Your task to perform on an android device: find photos in the google photos app Image 0: 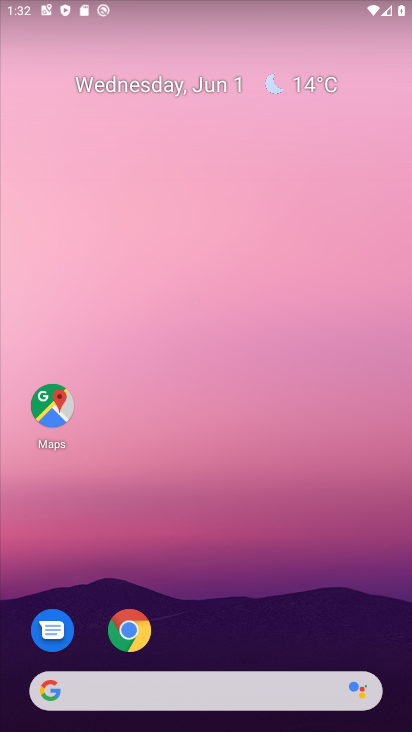
Step 0: click (55, 398)
Your task to perform on an android device: find photos in the google photos app Image 1: 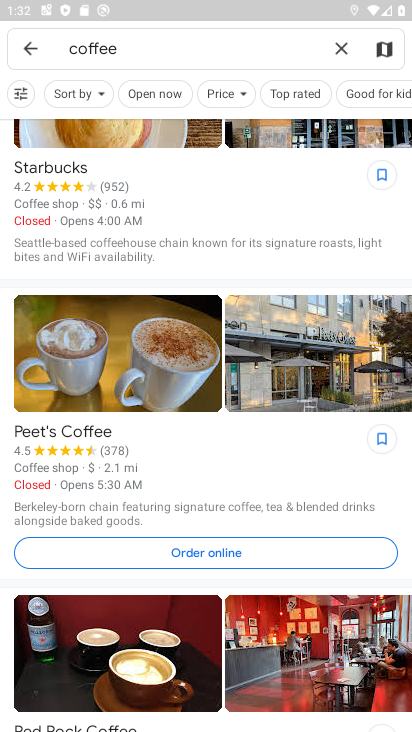
Step 1: click (339, 46)
Your task to perform on an android device: find photos in the google photos app Image 2: 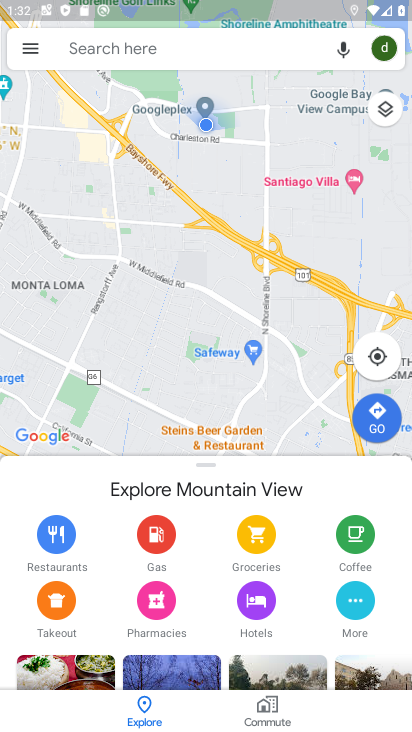
Step 2: press home button
Your task to perform on an android device: find photos in the google photos app Image 3: 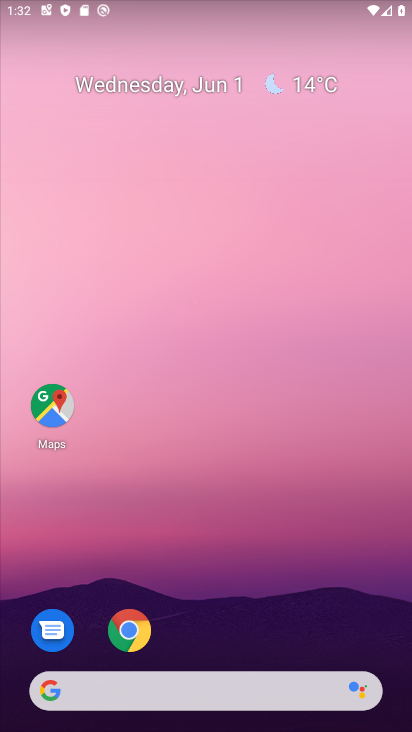
Step 3: drag from (207, 648) to (209, 60)
Your task to perform on an android device: find photos in the google photos app Image 4: 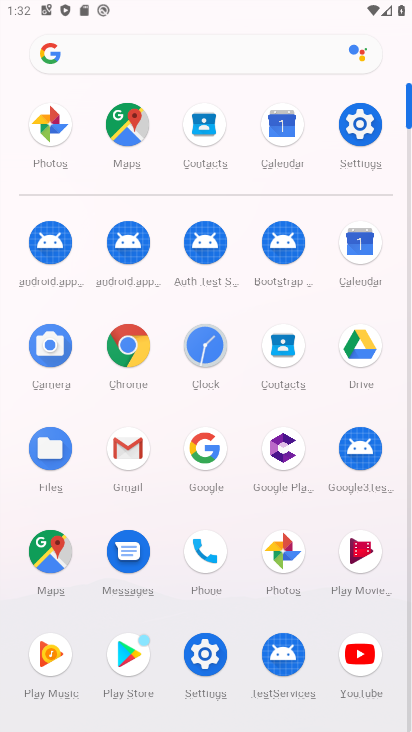
Step 4: click (284, 542)
Your task to perform on an android device: find photos in the google photos app Image 5: 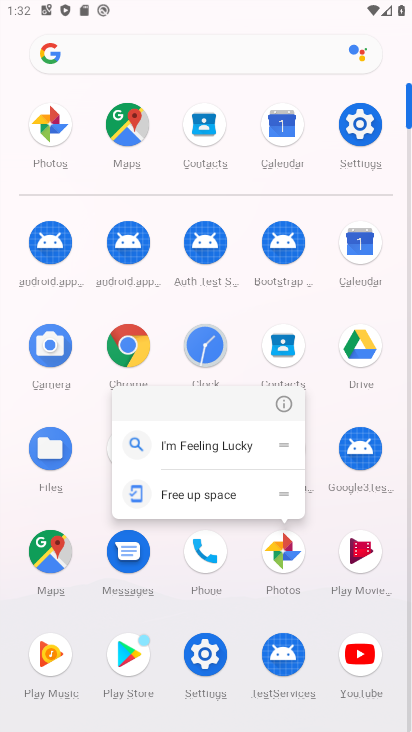
Step 5: click (283, 548)
Your task to perform on an android device: find photos in the google photos app Image 6: 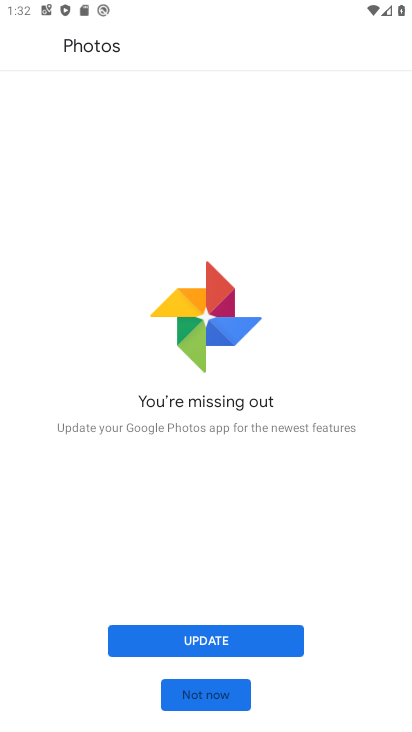
Step 6: click (207, 635)
Your task to perform on an android device: find photos in the google photos app Image 7: 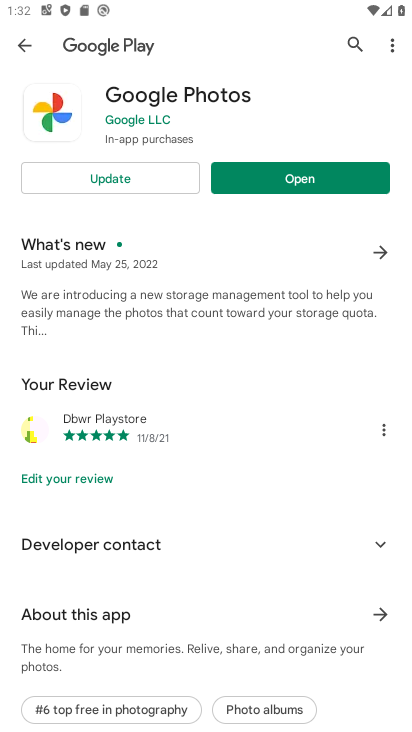
Step 7: click (114, 177)
Your task to perform on an android device: find photos in the google photos app Image 8: 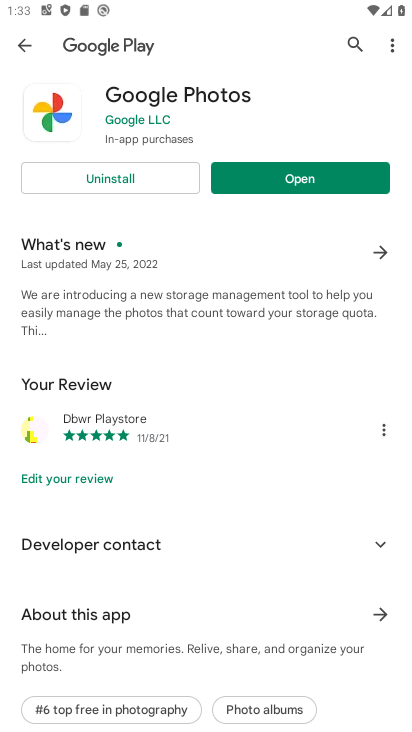
Step 8: click (302, 177)
Your task to perform on an android device: find photos in the google photos app Image 9: 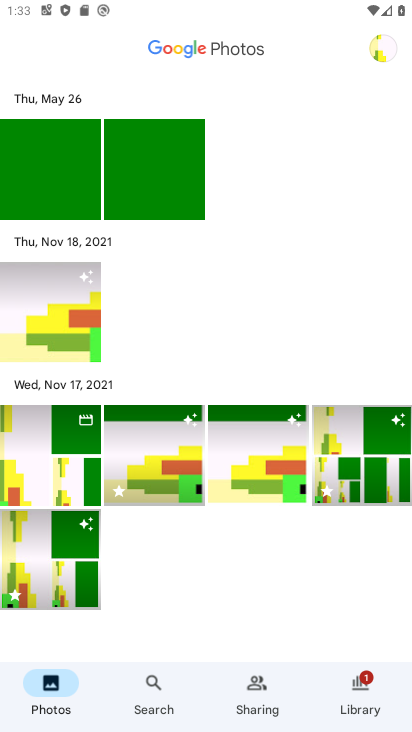
Step 9: task complete